Your task to perform on an android device: What's on my calendar tomorrow? Image 0: 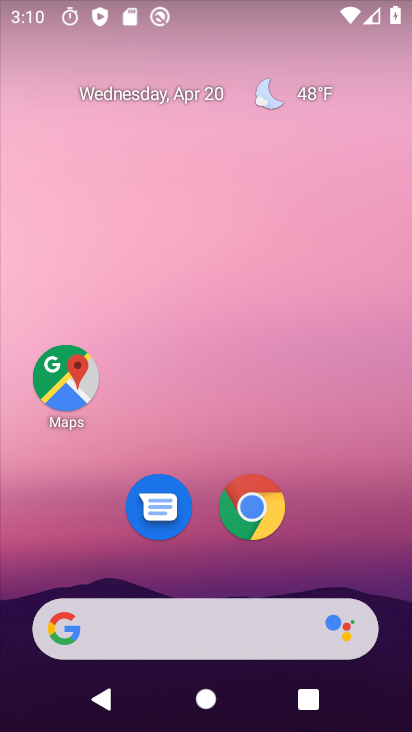
Step 0: drag from (216, 628) to (155, 108)
Your task to perform on an android device: What's on my calendar tomorrow? Image 1: 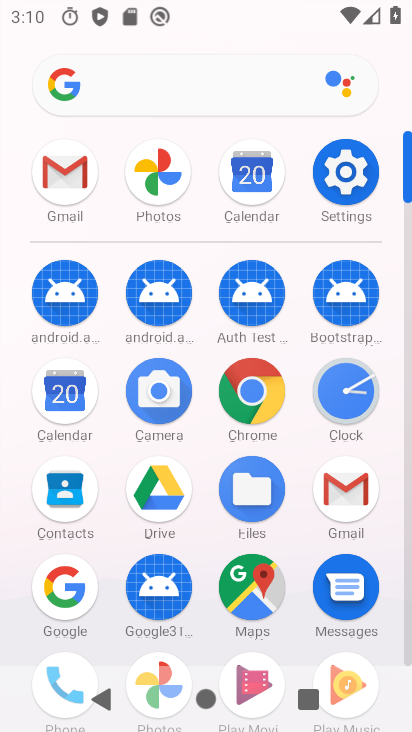
Step 1: click (52, 389)
Your task to perform on an android device: What's on my calendar tomorrow? Image 2: 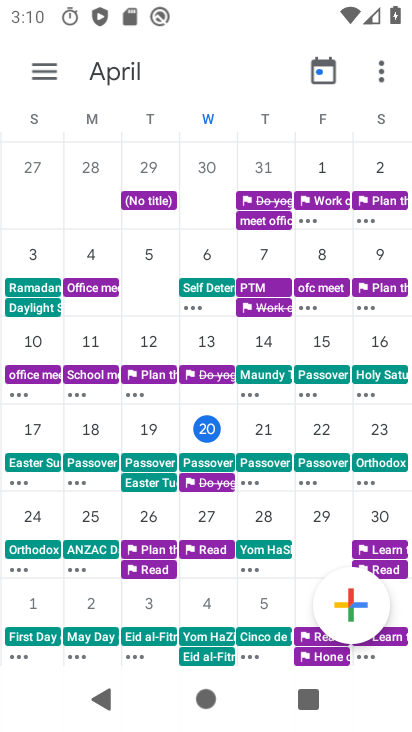
Step 2: click (37, 73)
Your task to perform on an android device: What's on my calendar tomorrow? Image 3: 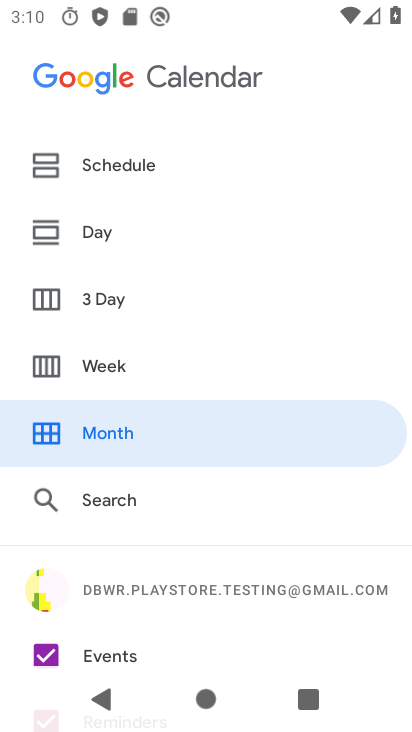
Step 3: click (103, 225)
Your task to perform on an android device: What's on my calendar tomorrow? Image 4: 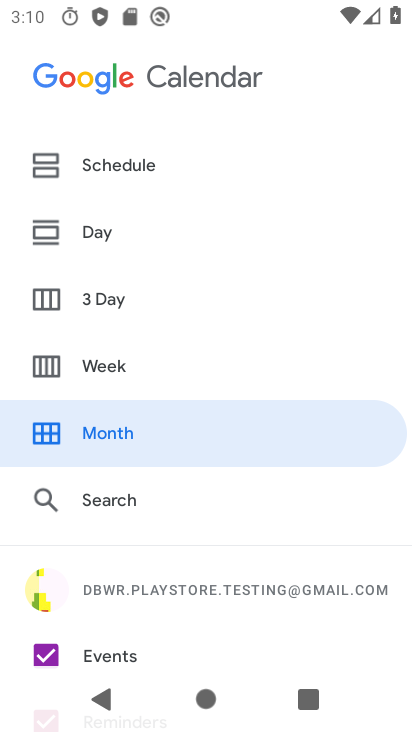
Step 4: click (115, 234)
Your task to perform on an android device: What's on my calendar tomorrow? Image 5: 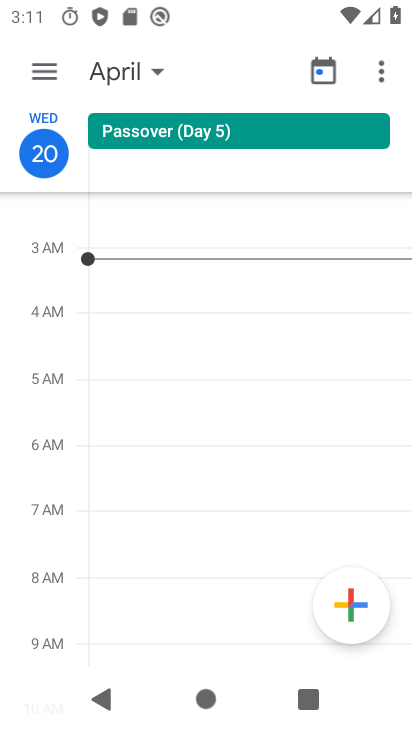
Step 5: task complete